Your task to perform on an android device: change alarm snooze length Image 0: 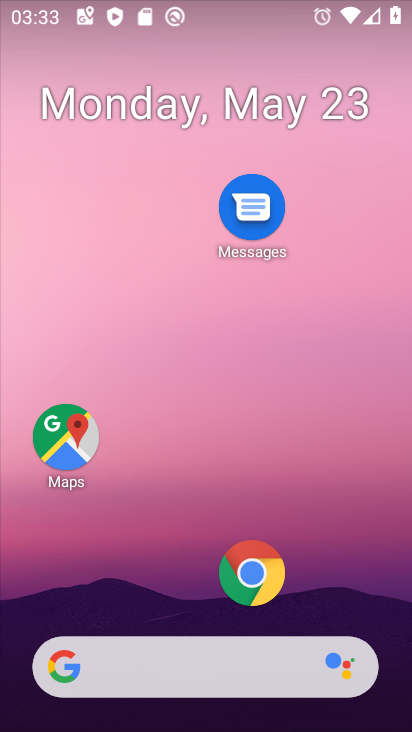
Step 0: drag from (277, 668) to (319, 22)
Your task to perform on an android device: change alarm snooze length Image 1: 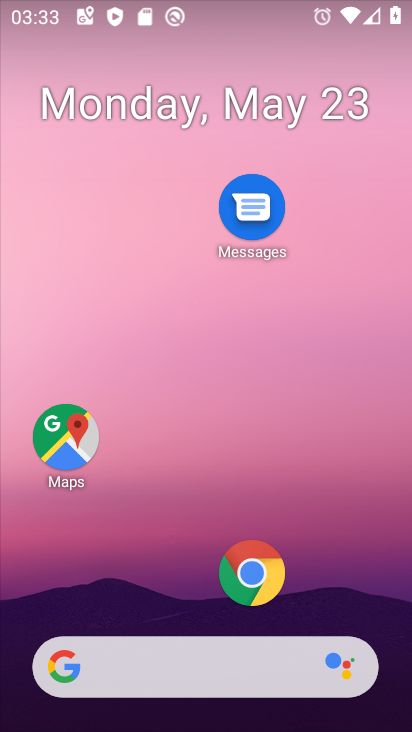
Step 1: drag from (209, 651) to (225, 70)
Your task to perform on an android device: change alarm snooze length Image 2: 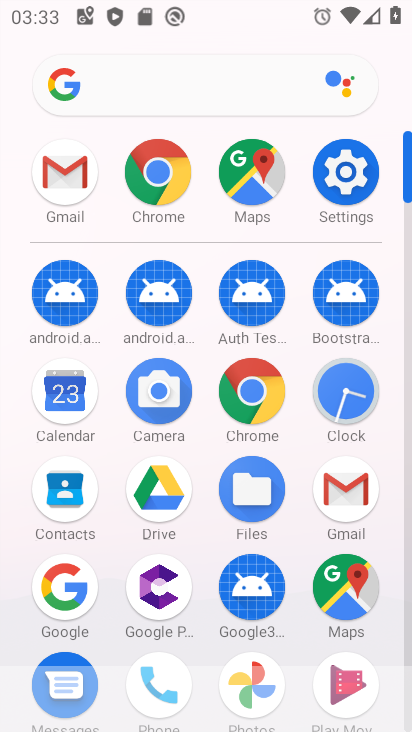
Step 2: click (346, 395)
Your task to perform on an android device: change alarm snooze length Image 3: 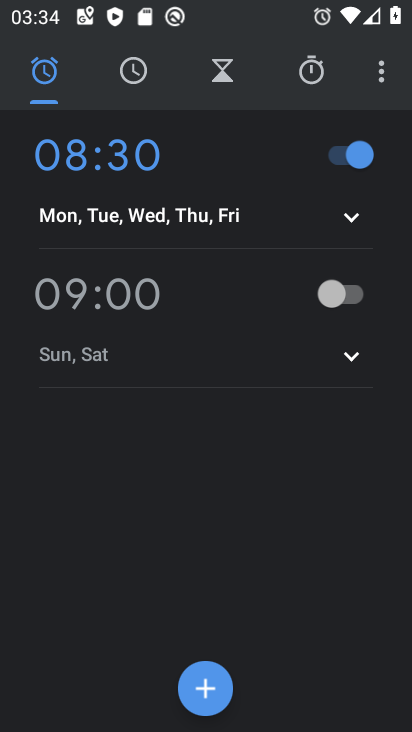
Step 3: click (366, 72)
Your task to perform on an android device: change alarm snooze length Image 4: 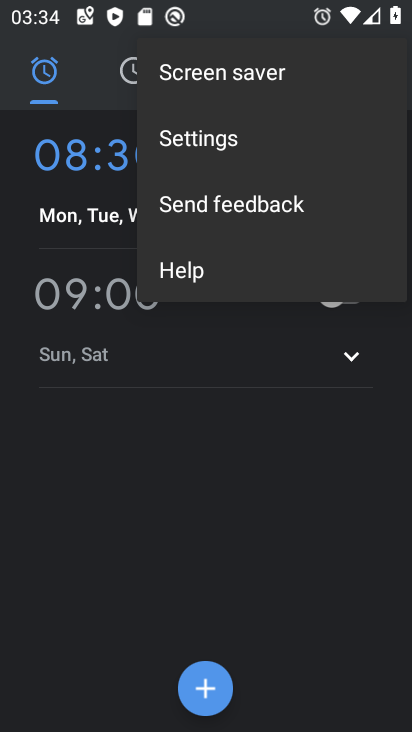
Step 4: click (232, 139)
Your task to perform on an android device: change alarm snooze length Image 5: 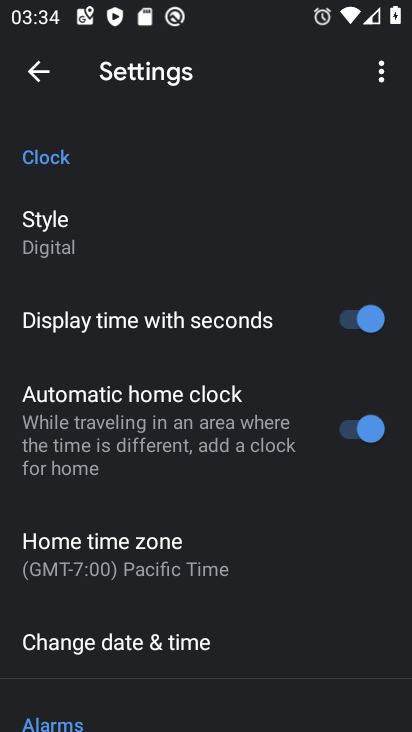
Step 5: drag from (226, 571) to (274, 0)
Your task to perform on an android device: change alarm snooze length Image 6: 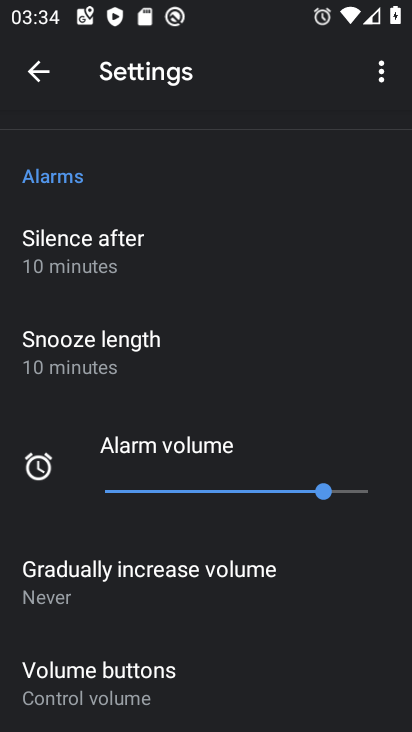
Step 6: click (151, 348)
Your task to perform on an android device: change alarm snooze length Image 7: 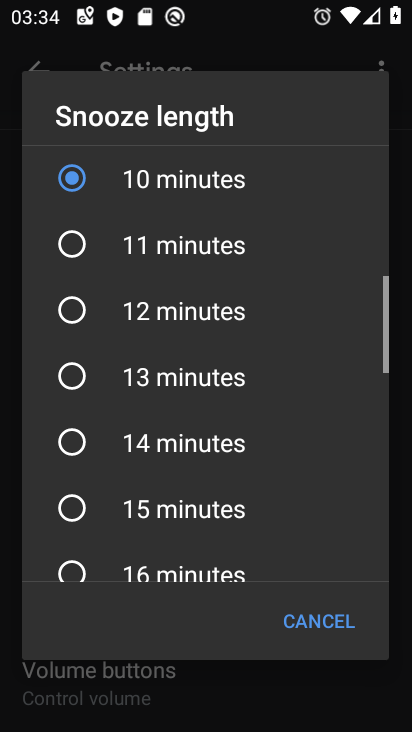
Step 7: click (69, 245)
Your task to perform on an android device: change alarm snooze length Image 8: 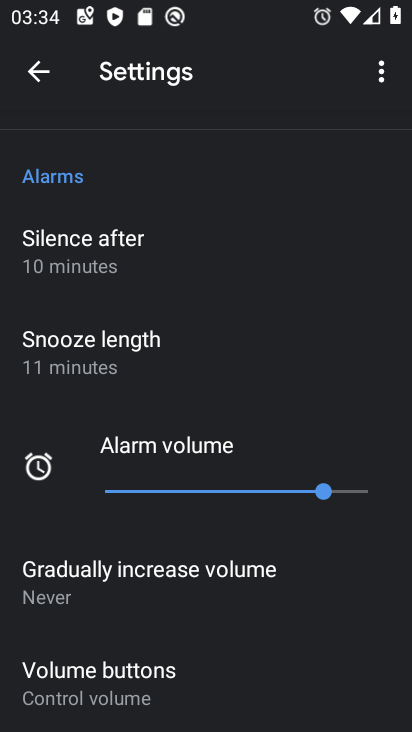
Step 8: task complete